Your task to perform on an android device: Clear the cart on ebay. Add beats solo 3 to the cart on ebay, then select checkout. Image 0: 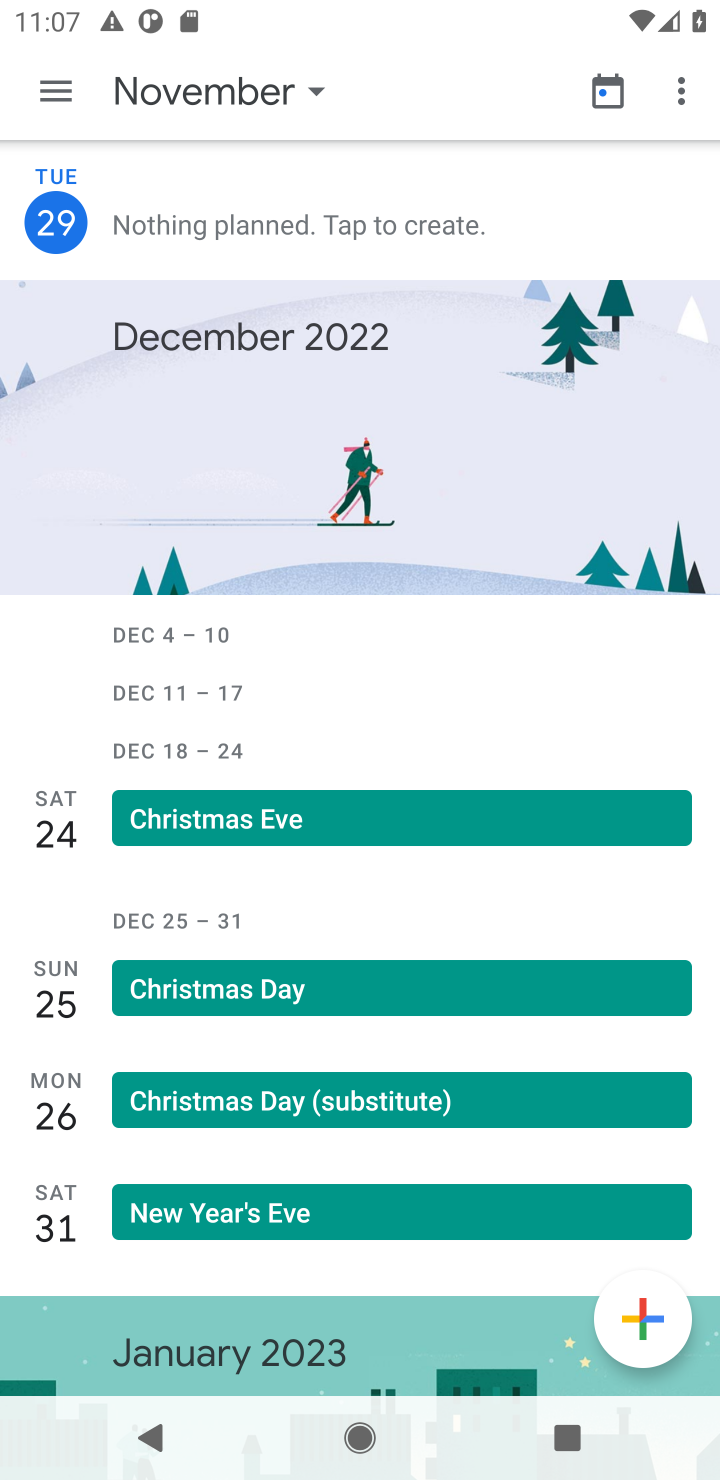
Step 0: press home button
Your task to perform on an android device: Clear the cart on ebay. Add beats solo 3 to the cart on ebay, then select checkout. Image 1: 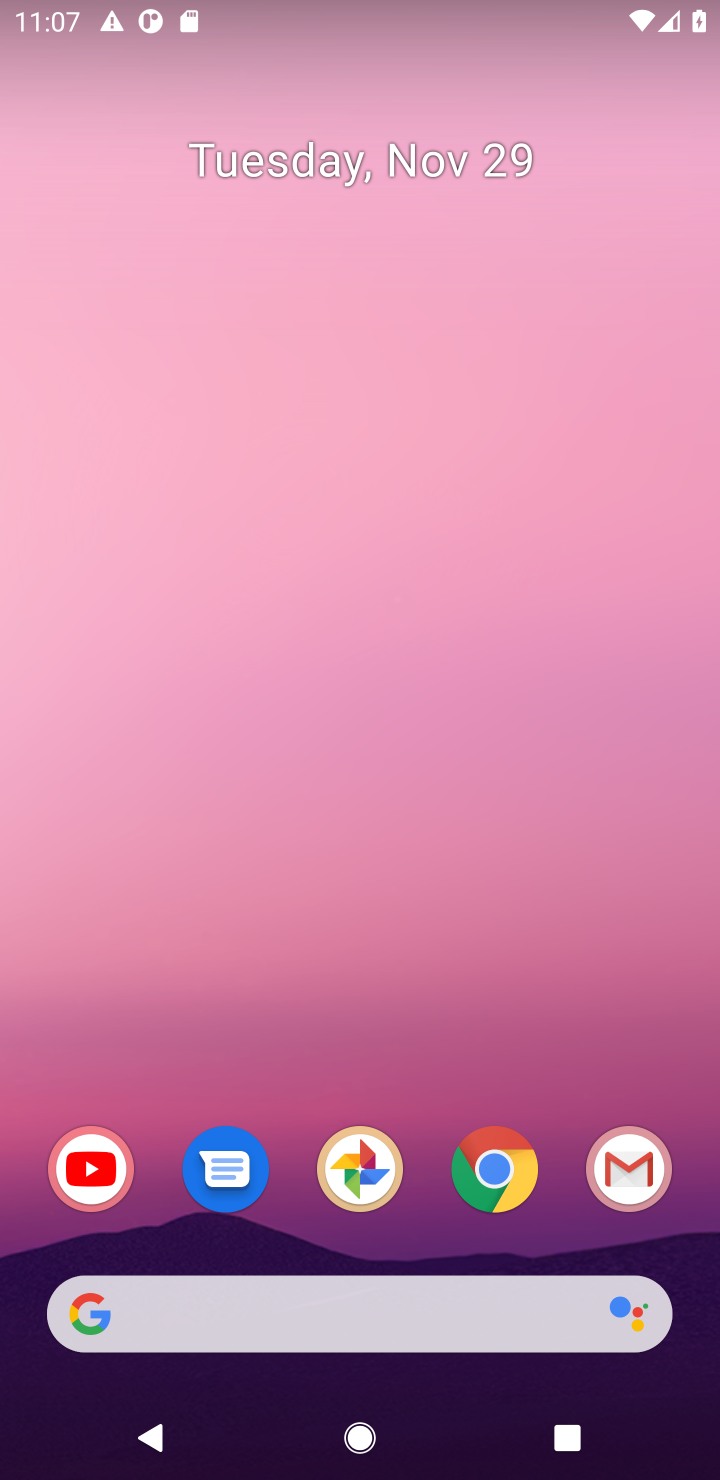
Step 1: click (244, 1298)
Your task to perform on an android device: Clear the cart on ebay. Add beats solo 3 to the cart on ebay, then select checkout. Image 2: 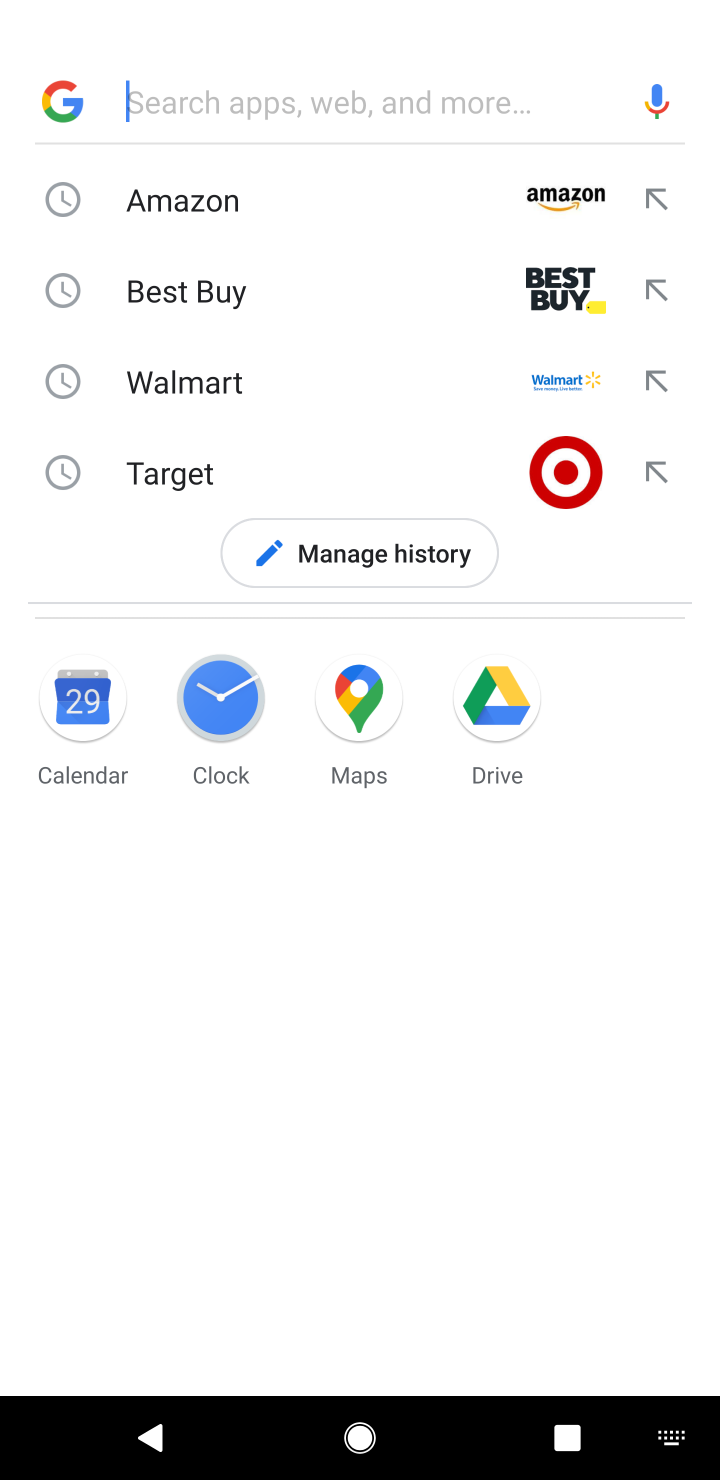
Step 2: type "ebay.com"
Your task to perform on an android device: Clear the cart on ebay. Add beats solo 3 to the cart on ebay, then select checkout. Image 3: 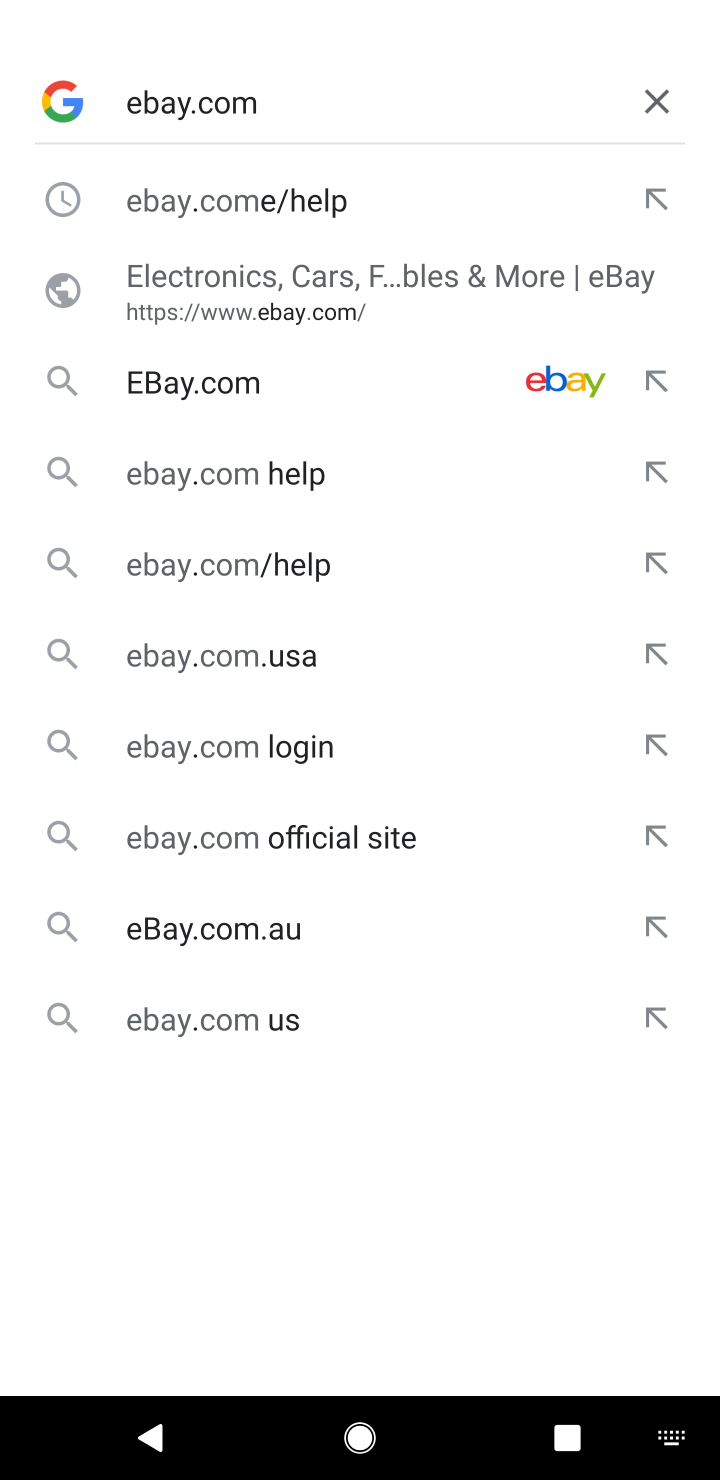
Step 3: click (239, 221)
Your task to perform on an android device: Clear the cart on ebay. Add beats solo 3 to the cart on ebay, then select checkout. Image 4: 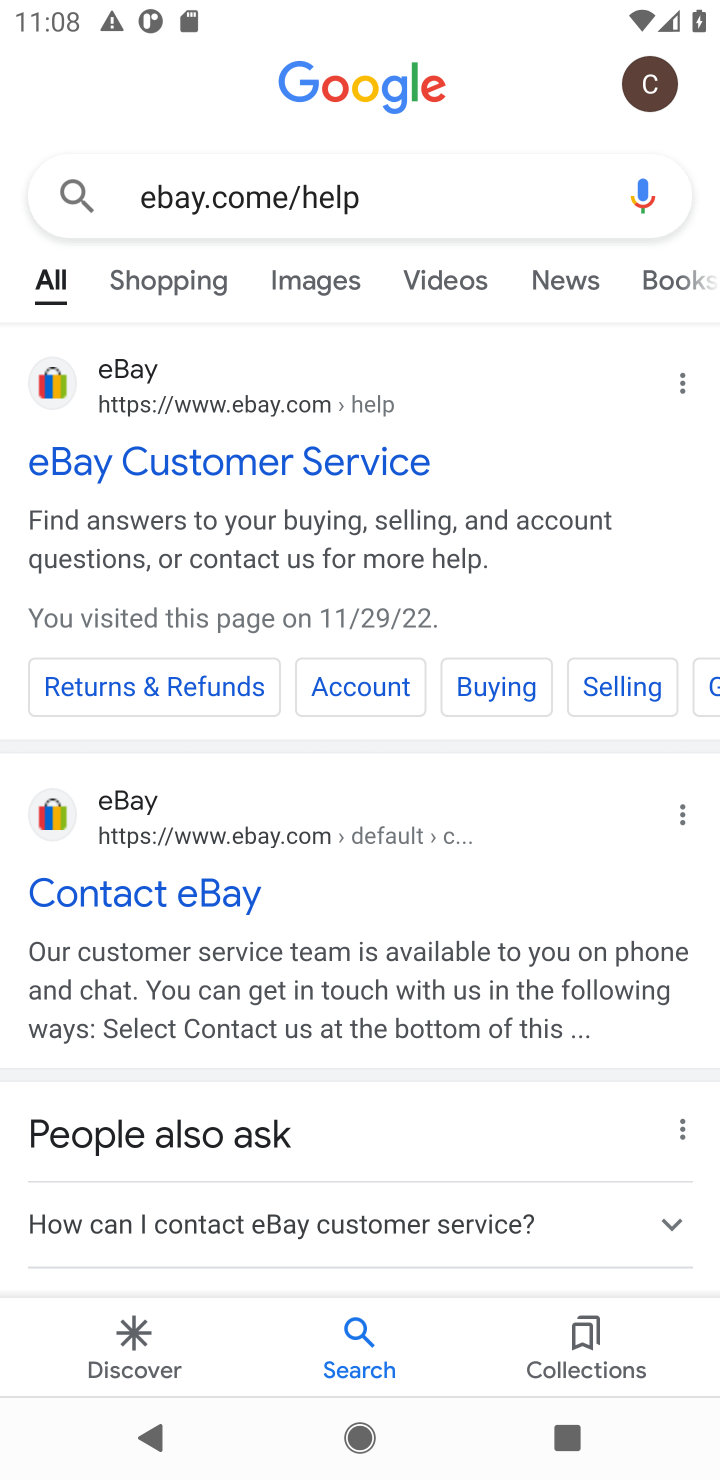
Step 4: click (120, 496)
Your task to perform on an android device: Clear the cart on ebay. Add beats solo 3 to the cart on ebay, then select checkout. Image 5: 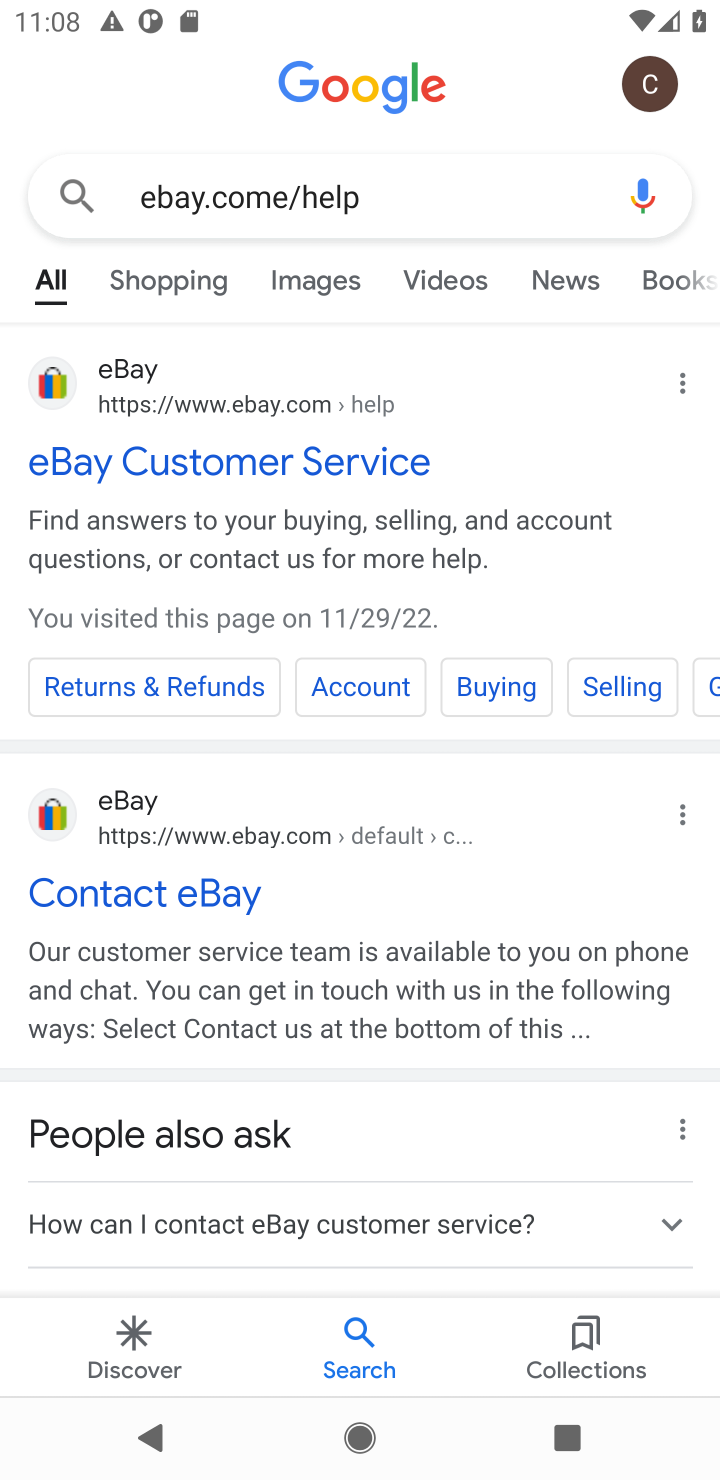
Step 5: click (194, 465)
Your task to perform on an android device: Clear the cart on ebay. Add beats solo 3 to the cart on ebay, then select checkout. Image 6: 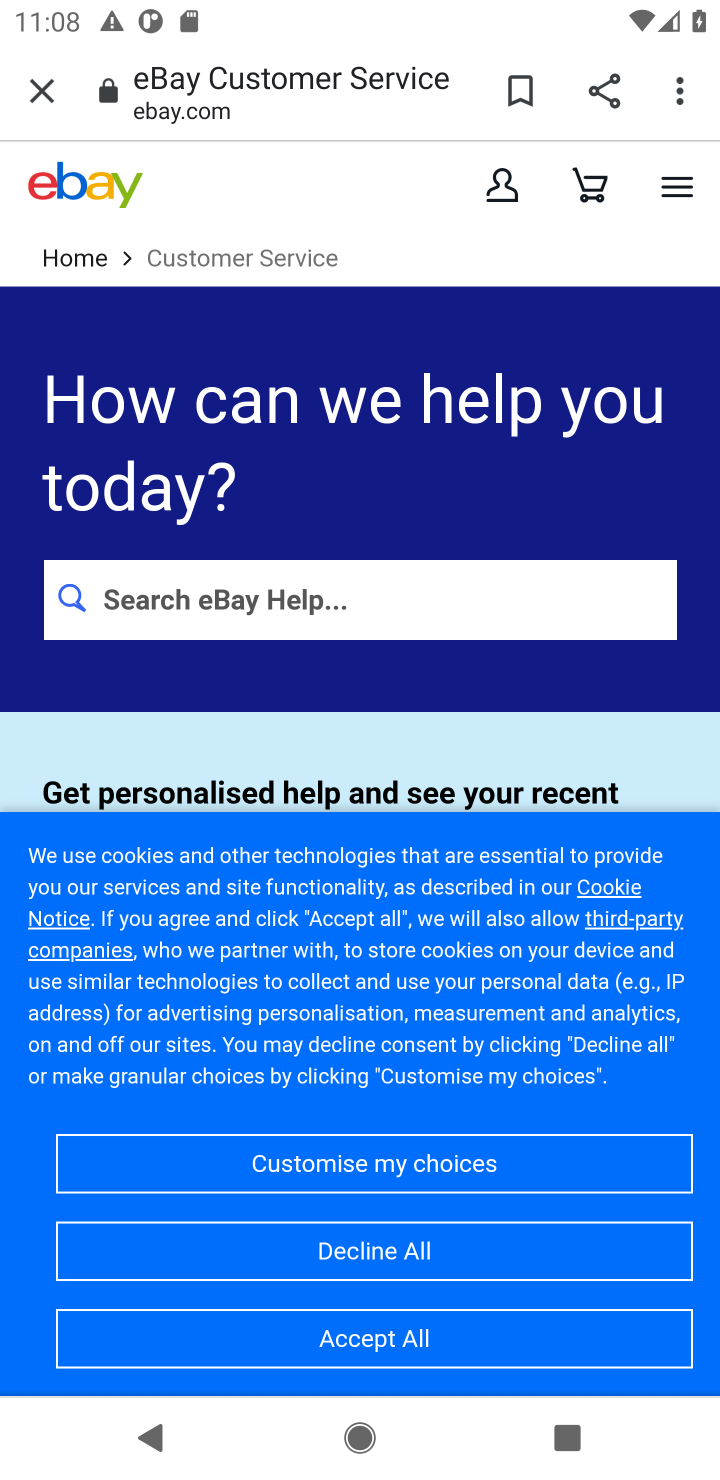
Step 6: task complete